Your task to perform on an android device: Set the phone to "Do not disturb". Image 0: 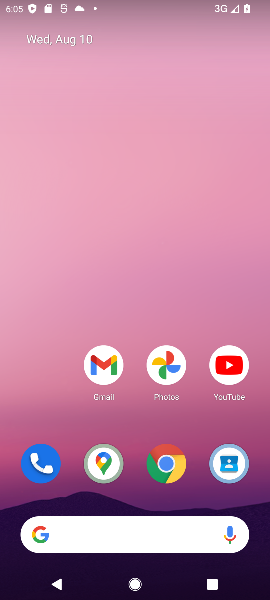
Step 0: drag from (136, 496) to (77, 68)
Your task to perform on an android device: Set the phone to "Do not disturb". Image 1: 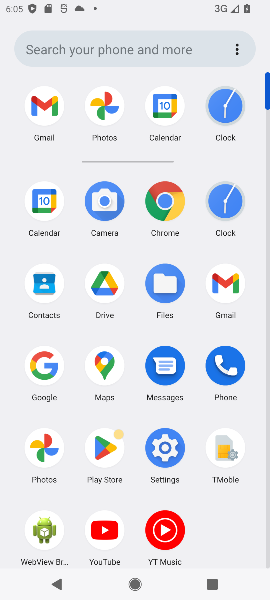
Step 1: click (163, 449)
Your task to perform on an android device: Set the phone to "Do not disturb". Image 2: 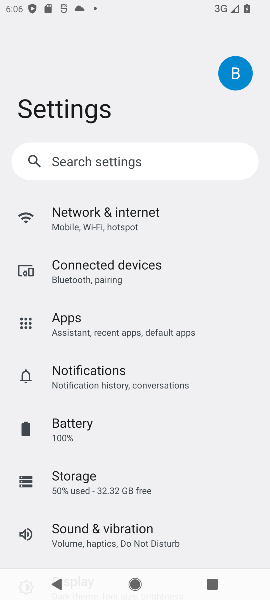
Step 2: click (81, 530)
Your task to perform on an android device: Set the phone to "Do not disturb". Image 3: 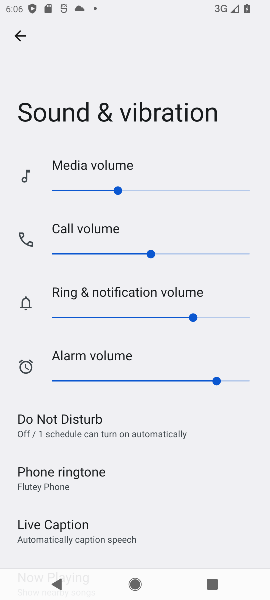
Step 3: click (61, 419)
Your task to perform on an android device: Set the phone to "Do not disturb". Image 4: 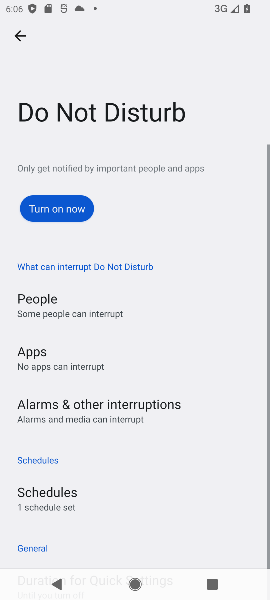
Step 4: click (44, 211)
Your task to perform on an android device: Set the phone to "Do not disturb". Image 5: 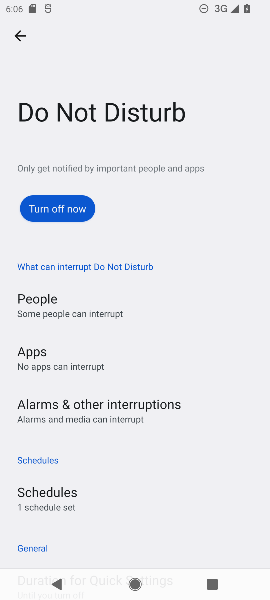
Step 5: task complete